Your task to perform on an android device: see sites visited before in the chrome app Image 0: 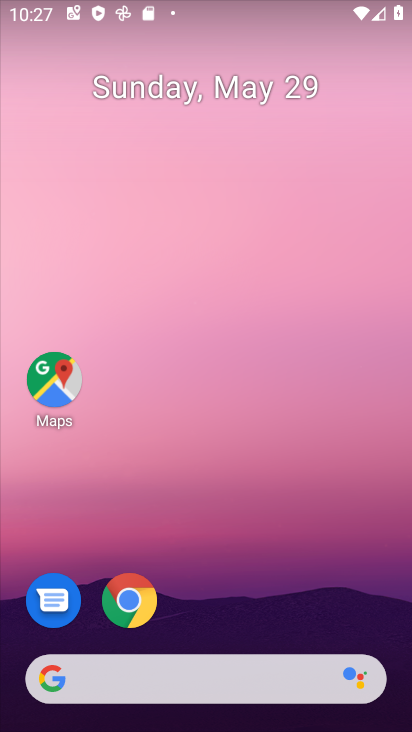
Step 0: click (128, 604)
Your task to perform on an android device: see sites visited before in the chrome app Image 1: 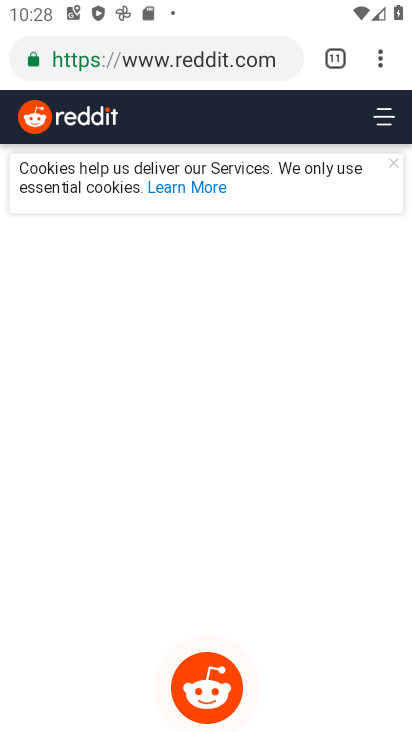
Step 1: click (380, 62)
Your task to perform on an android device: see sites visited before in the chrome app Image 2: 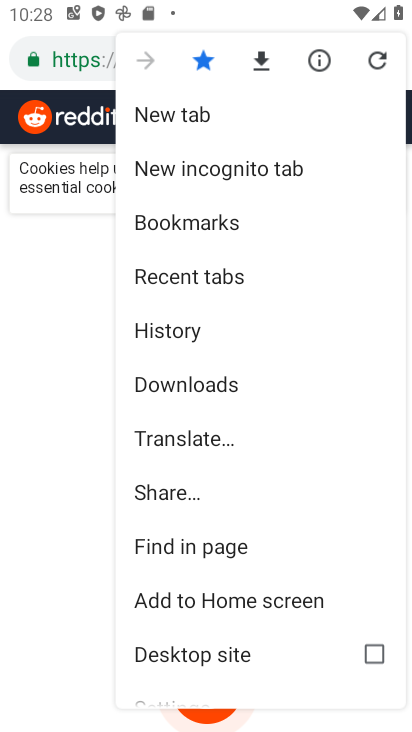
Step 2: click (147, 327)
Your task to perform on an android device: see sites visited before in the chrome app Image 3: 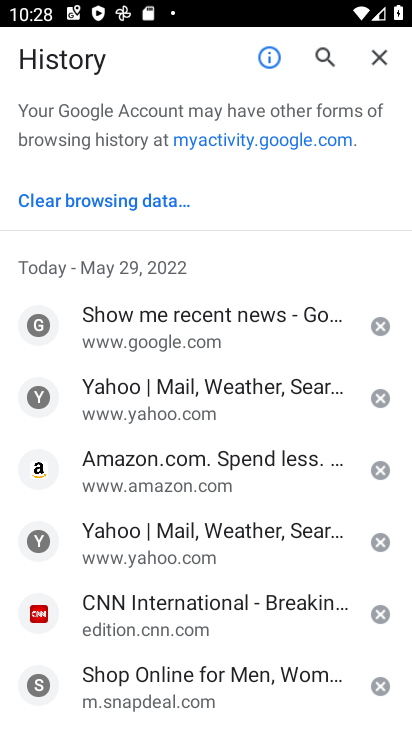
Step 3: task complete